Your task to perform on an android device: Search for flights from Helsinki to Tokyo Image 0: 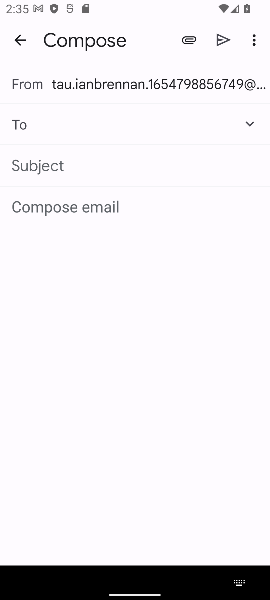
Step 0: press home button
Your task to perform on an android device: Search for flights from Helsinki to Tokyo Image 1: 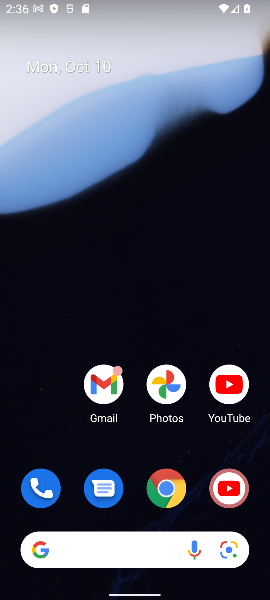
Step 1: click (80, 550)
Your task to perform on an android device: Search for flights from Helsinki to Tokyo Image 2: 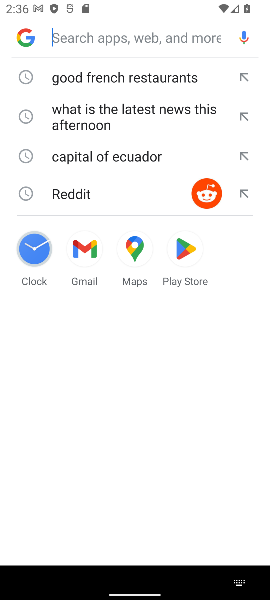
Step 2: click (95, 29)
Your task to perform on an android device: Search for flights from Helsinki to Tokyo Image 3: 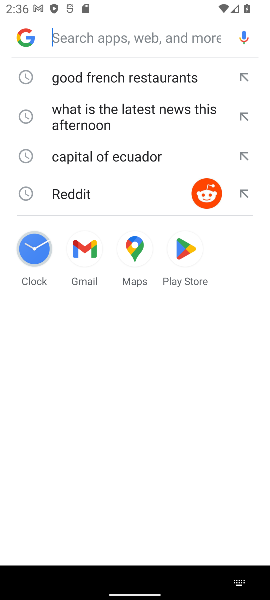
Step 3: type "flights from Helsinki to Tokyo"
Your task to perform on an android device: Search for flights from Helsinki to Tokyo Image 4: 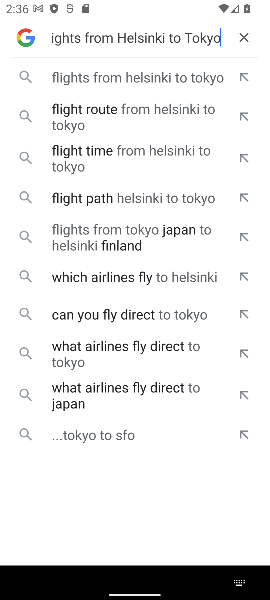
Step 4: click (148, 74)
Your task to perform on an android device: Search for flights from Helsinki to Tokyo Image 5: 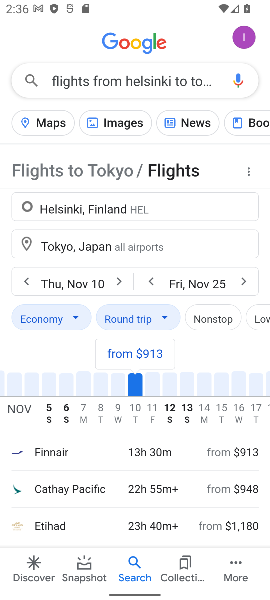
Step 5: task complete